Your task to perform on an android device: Open privacy settings Image 0: 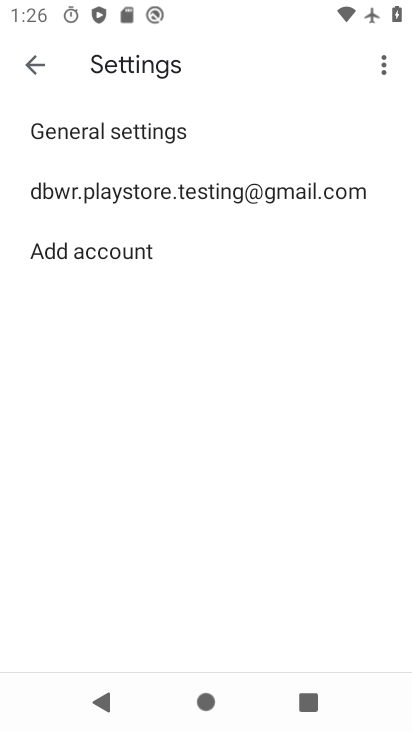
Step 0: press home button
Your task to perform on an android device: Open privacy settings Image 1: 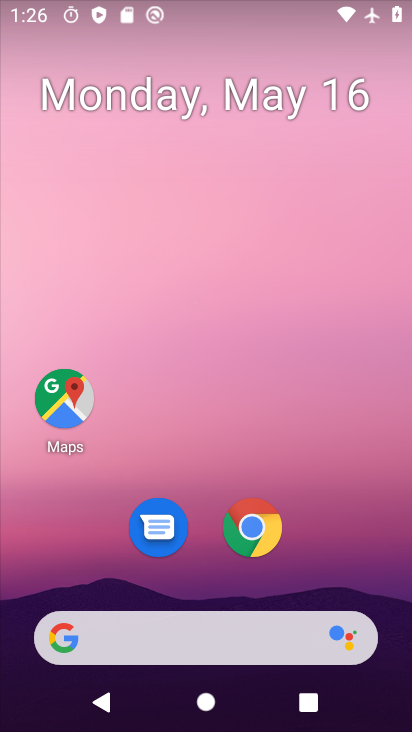
Step 1: drag from (180, 641) to (262, 236)
Your task to perform on an android device: Open privacy settings Image 2: 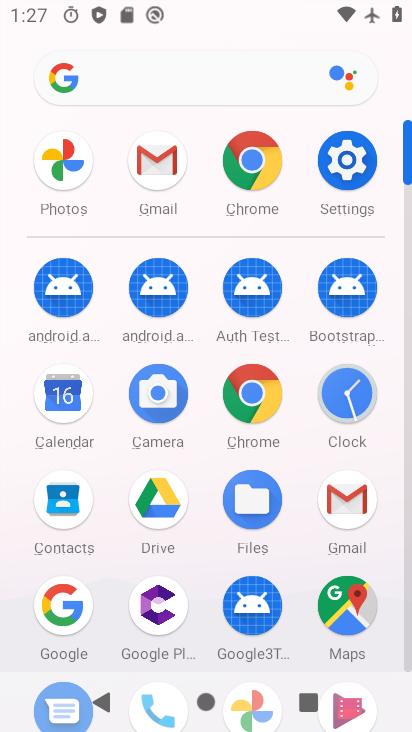
Step 2: click (349, 170)
Your task to perform on an android device: Open privacy settings Image 3: 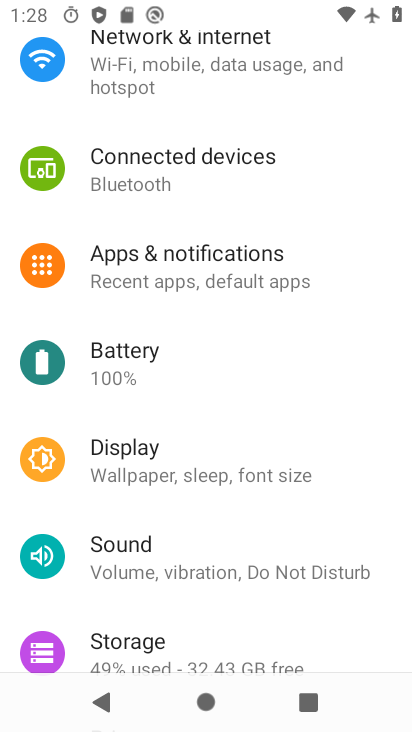
Step 3: drag from (280, 123) to (229, 460)
Your task to perform on an android device: Open privacy settings Image 4: 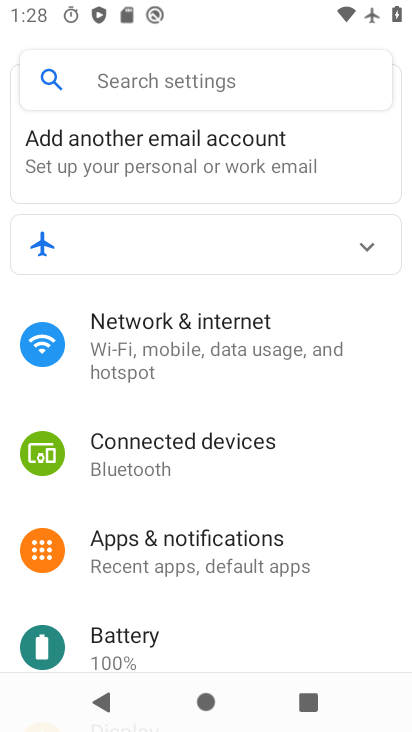
Step 4: drag from (198, 615) to (283, 120)
Your task to perform on an android device: Open privacy settings Image 5: 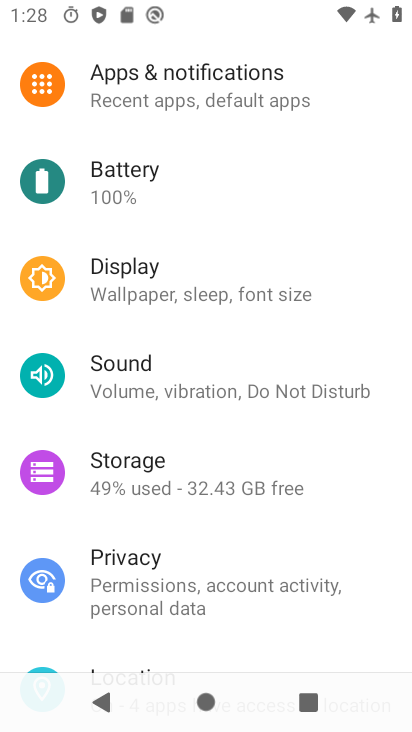
Step 5: click (171, 576)
Your task to perform on an android device: Open privacy settings Image 6: 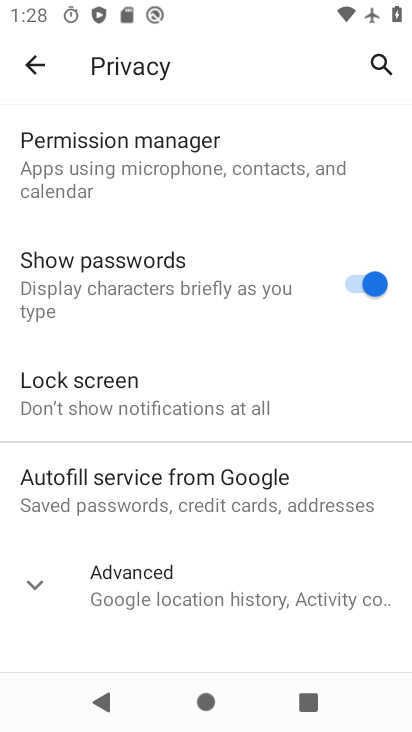
Step 6: task complete